Your task to perform on an android device: toggle wifi Image 0: 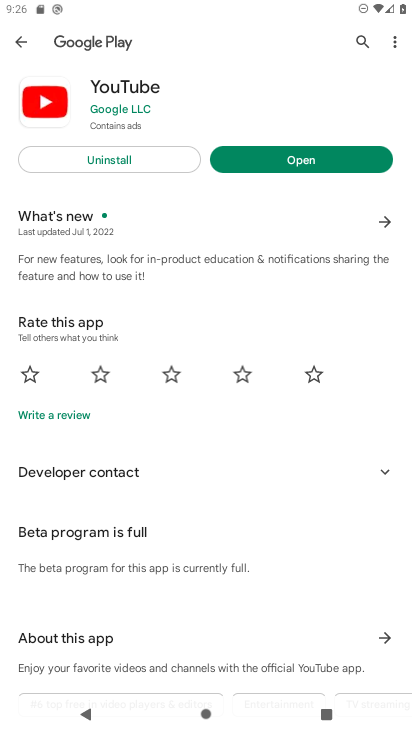
Step 0: drag from (133, 6) to (116, 632)
Your task to perform on an android device: toggle wifi Image 1: 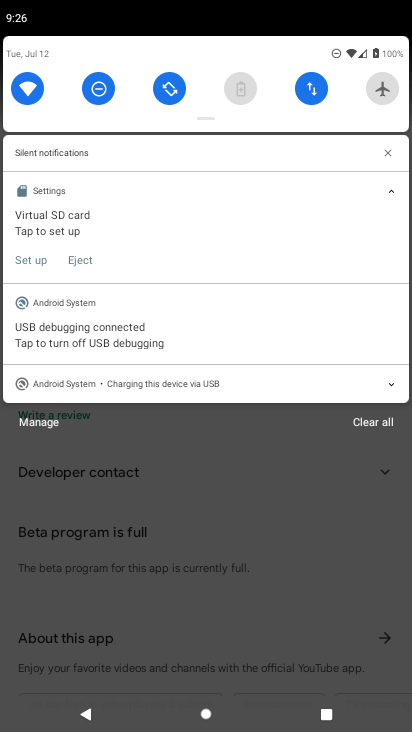
Step 1: click (25, 98)
Your task to perform on an android device: toggle wifi Image 2: 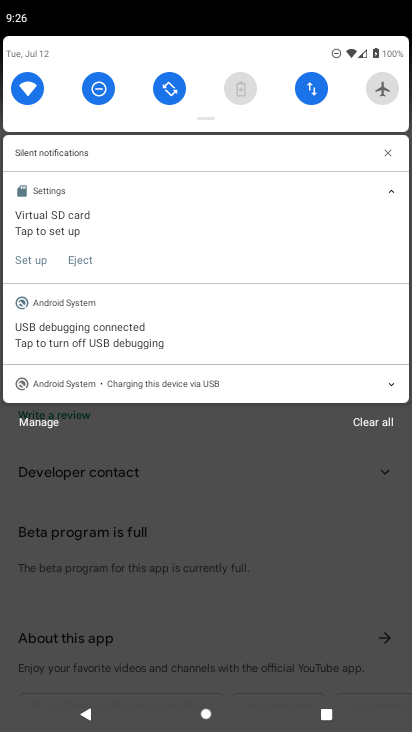
Step 2: click (25, 98)
Your task to perform on an android device: toggle wifi Image 3: 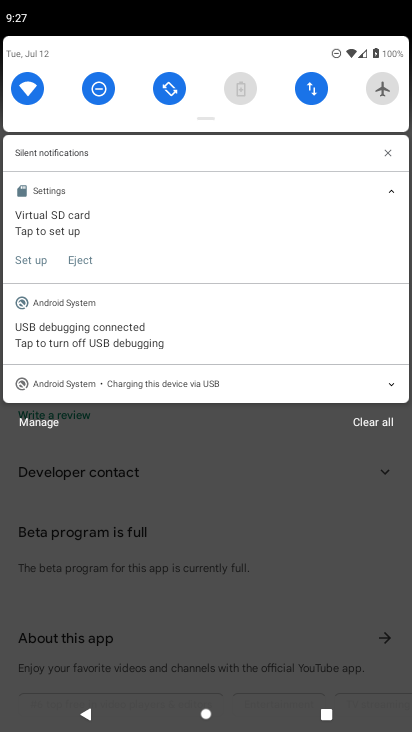
Step 3: click (26, 96)
Your task to perform on an android device: toggle wifi Image 4: 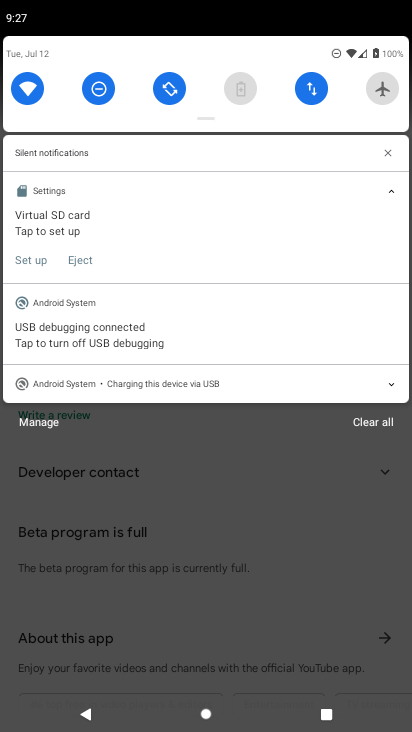
Step 4: click (26, 96)
Your task to perform on an android device: toggle wifi Image 5: 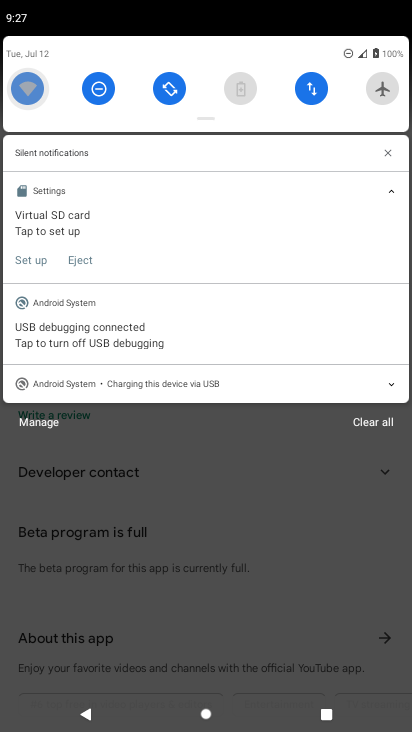
Step 5: click (26, 96)
Your task to perform on an android device: toggle wifi Image 6: 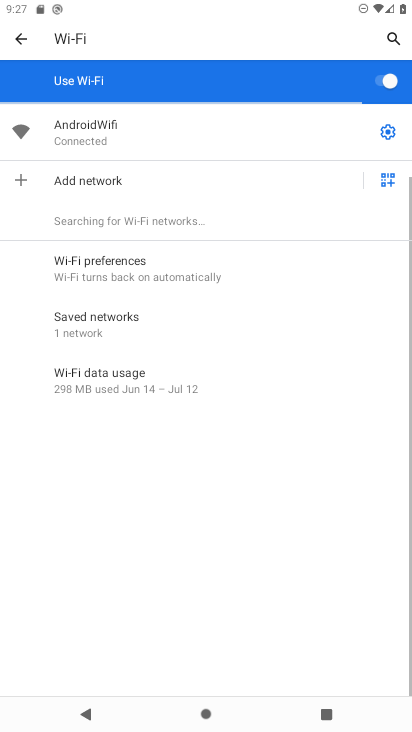
Step 6: task complete